Your task to perform on an android device: Search for sushi restaurants on Maps Image 0: 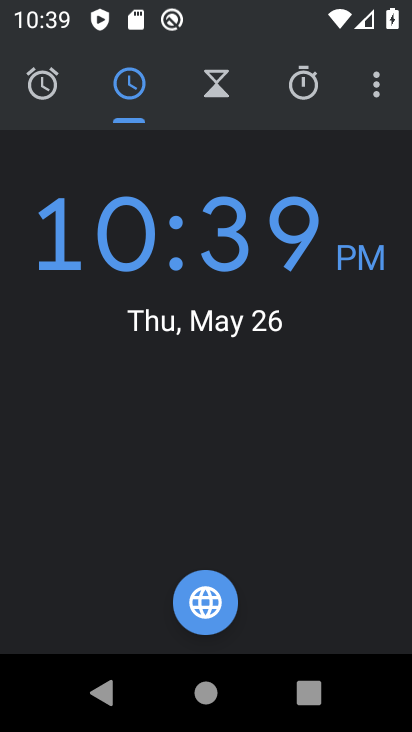
Step 0: press home button
Your task to perform on an android device: Search for sushi restaurants on Maps Image 1: 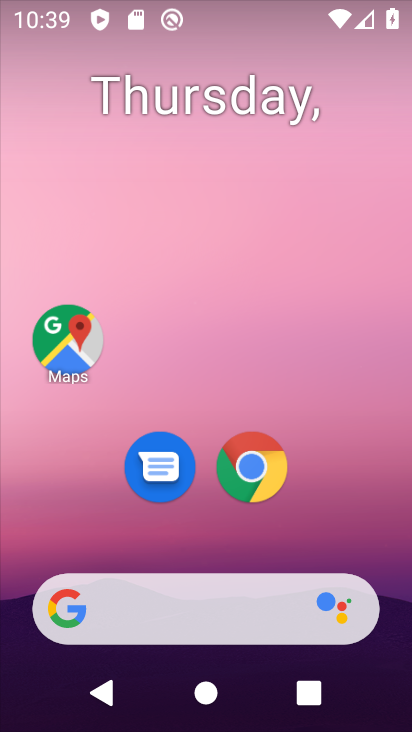
Step 1: drag from (221, 543) to (224, 368)
Your task to perform on an android device: Search for sushi restaurants on Maps Image 2: 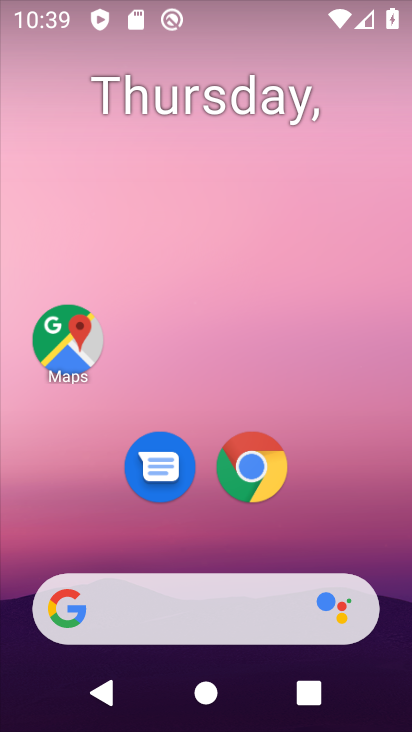
Step 2: click (62, 340)
Your task to perform on an android device: Search for sushi restaurants on Maps Image 3: 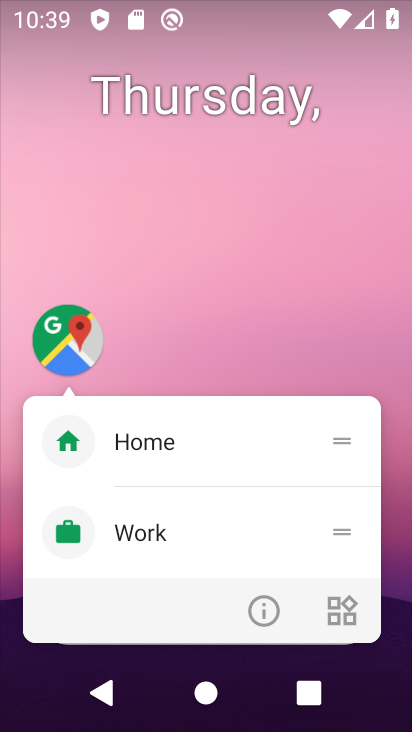
Step 3: click (65, 340)
Your task to perform on an android device: Search for sushi restaurants on Maps Image 4: 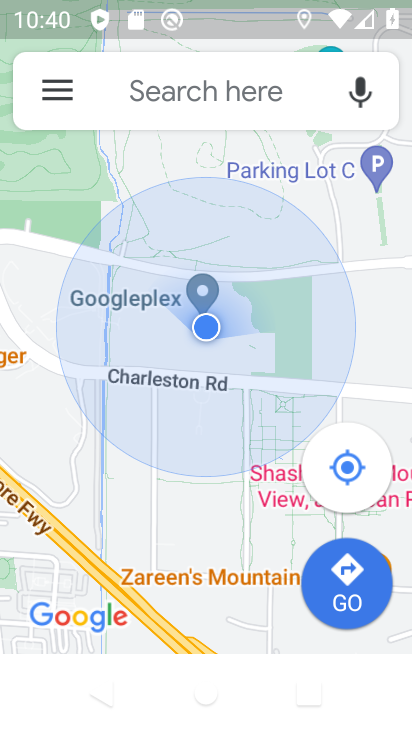
Step 4: click (129, 89)
Your task to perform on an android device: Search for sushi restaurants on Maps Image 5: 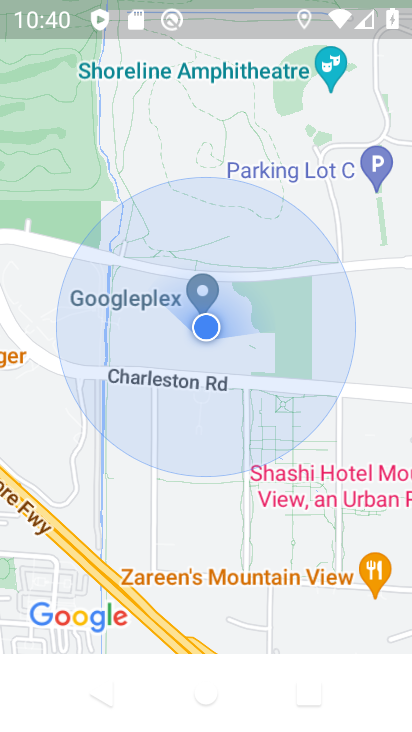
Step 5: type "sushi restaurants"
Your task to perform on an android device: Search for sushi restaurants on Maps Image 6: 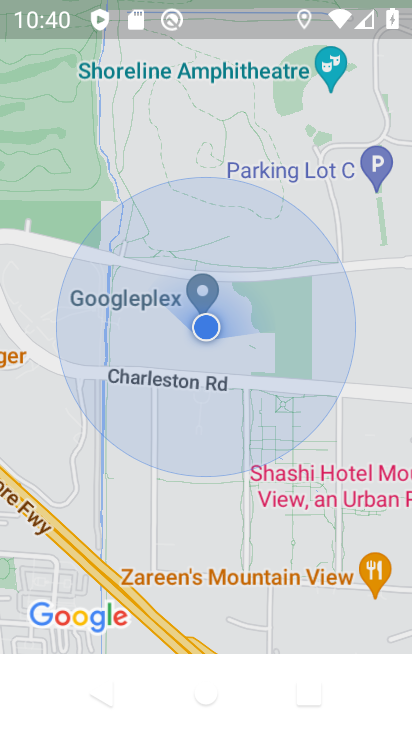
Step 6: task complete